Your task to perform on an android device: set an alarm Image 0: 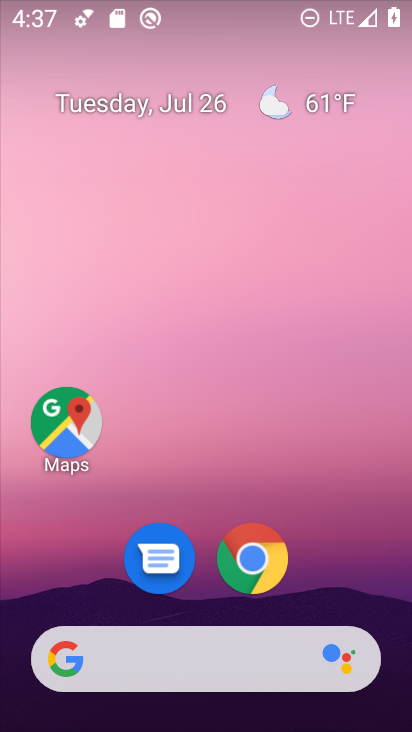
Step 0: drag from (68, 568) to (239, 7)
Your task to perform on an android device: set an alarm Image 1: 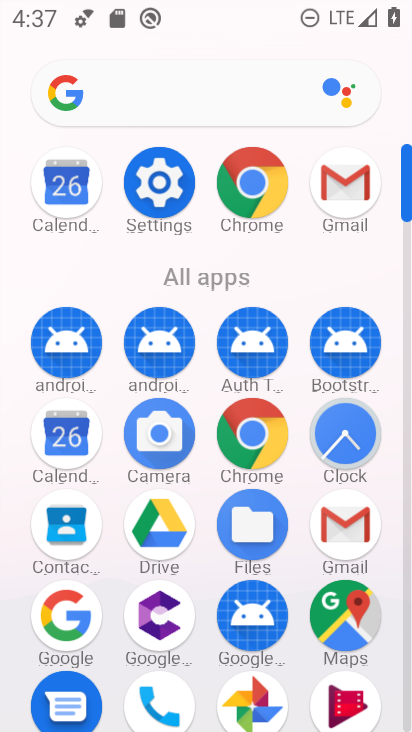
Step 1: click (353, 420)
Your task to perform on an android device: set an alarm Image 2: 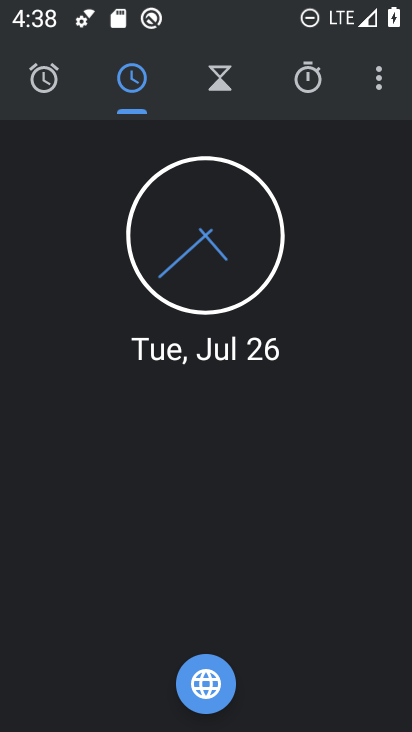
Step 2: click (46, 77)
Your task to perform on an android device: set an alarm Image 3: 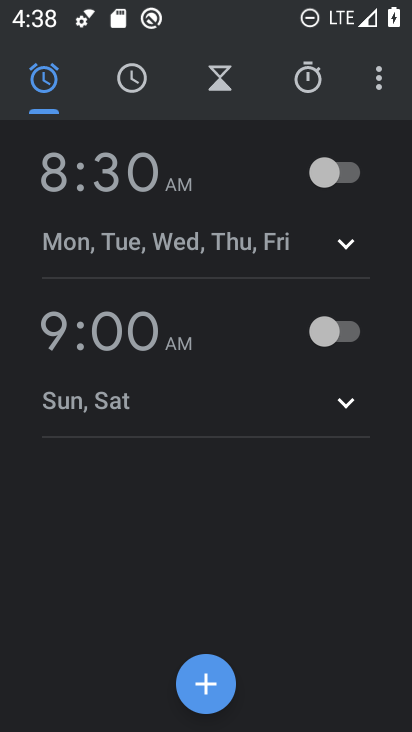
Step 3: click (345, 179)
Your task to perform on an android device: set an alarm Image 4: 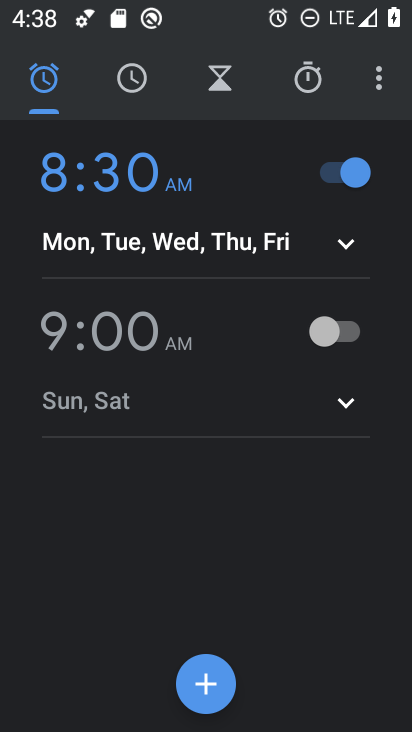
Step 4: task complete